Your task to perform on an android device: toggle notification dots Image 0: 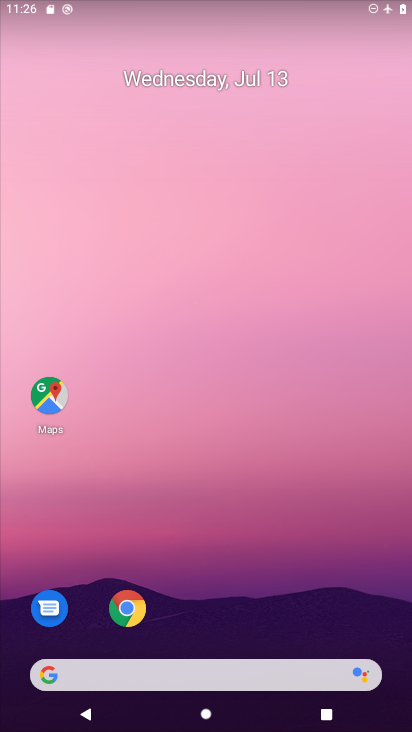
Step 0: drag from (325, 585) to (388, 13)
Your task to perform on an android device: toggle notification dots Image 1: 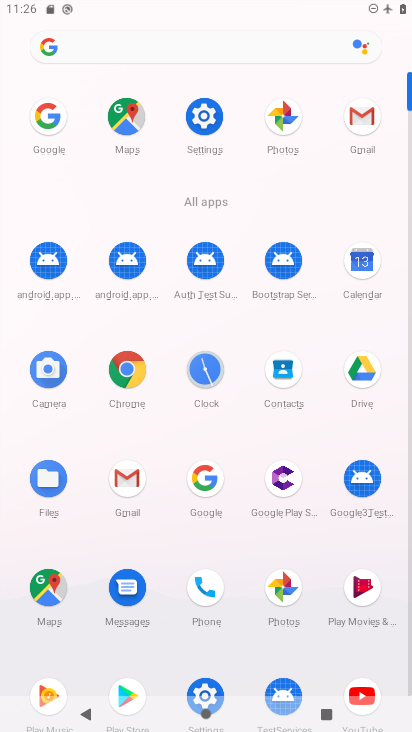
Step 1: click (203, 127)
Your task to perform on an android device: toggle notification dots Image 2: 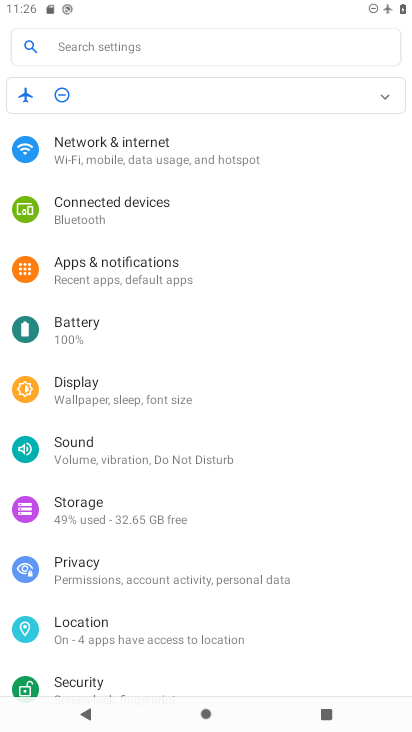
Step 2: click (151, 252)
Your task to perform on an android device: toggle notification dots Image 3: 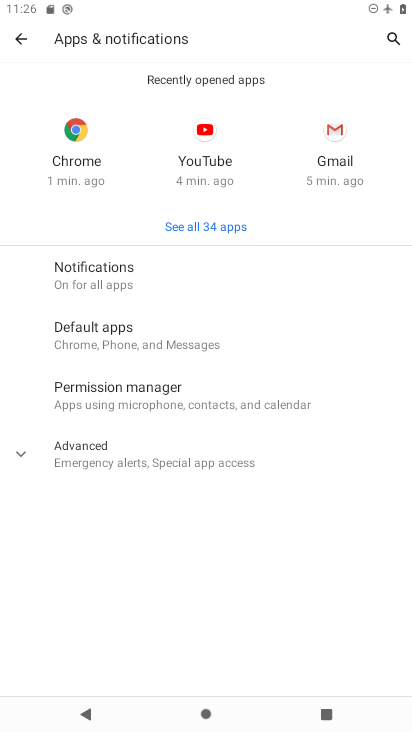
Step 3: click (128, 278)
Your task to perform on an android device: toggle notification dots Image 4: 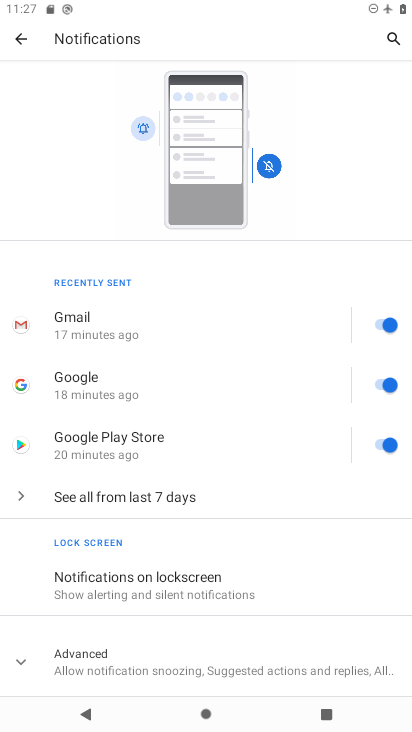
Step 4: click (146, 661)
Your task to perform on an android device: toggle notification dots Image 5: 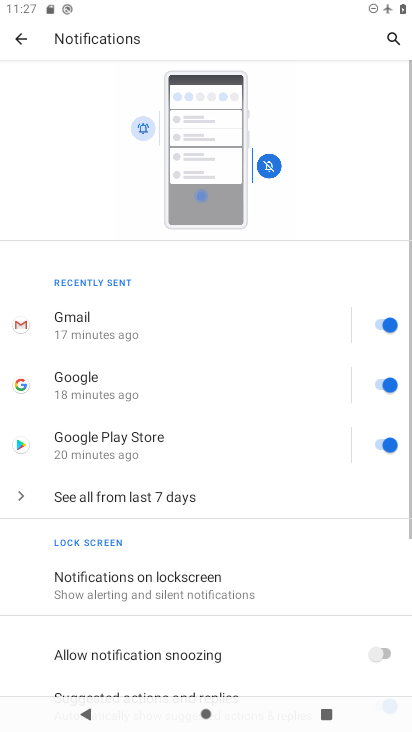
Step 5: drag from (146, 661) to (183, 281)
Your task to perform on an android device: toggle notification dots Image 6: 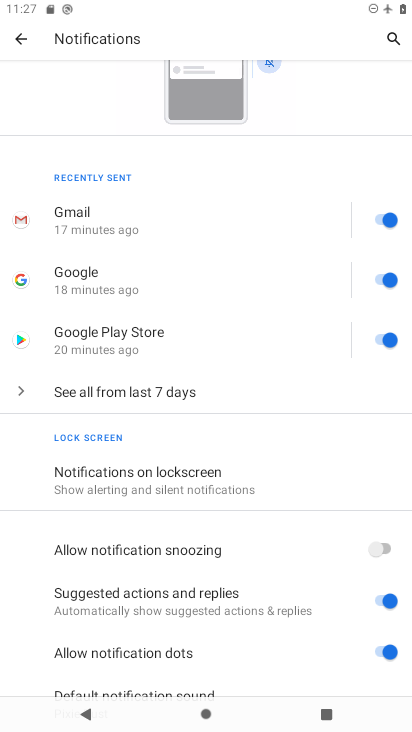
Step 6: click (378, 662)
Your task to perform on an android device: toggle notification dots Image 7: 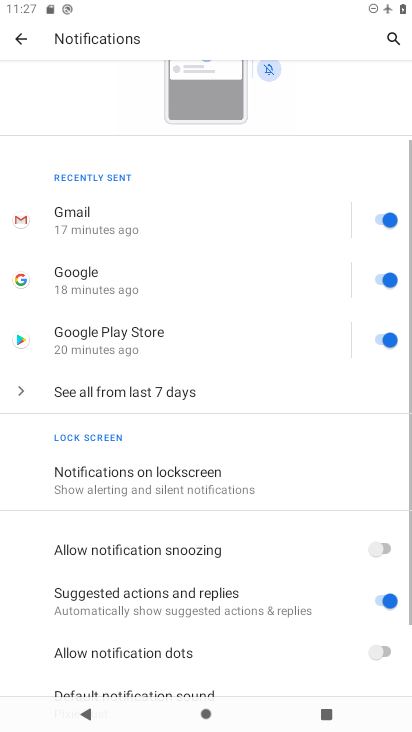
Step 7: task complete